Your task to perform on an android device: turn notification dots on Image 0: 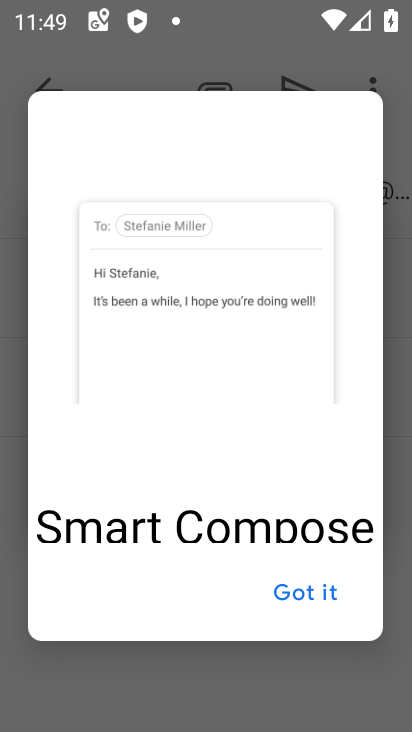
Step 0: press home button
Your task to perform on an android device: turn notification dots on Image 1: 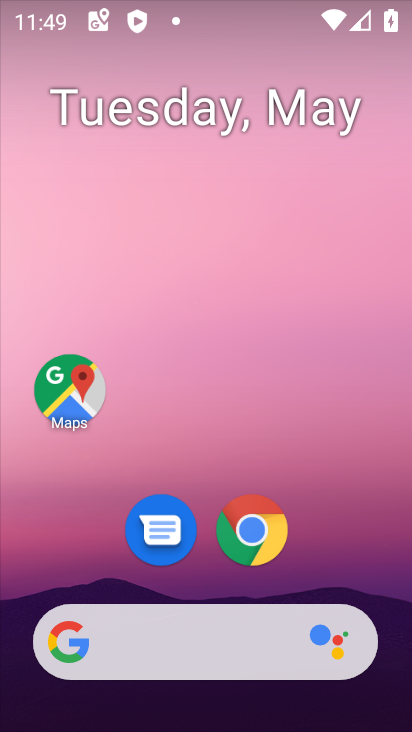
Step 1: drag from (216, 567) to (239, 135)
Your task to perform on an android device: turn notification dots on Image 2: 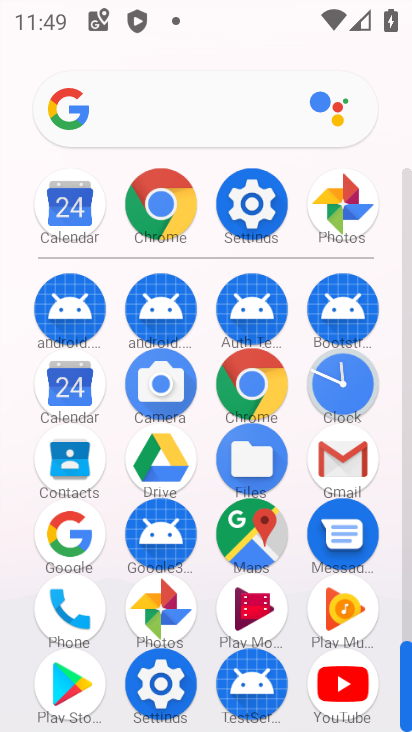
Step 2: click (252, 205)
Your task to perform on an android device: turn notification dots on Image 3: 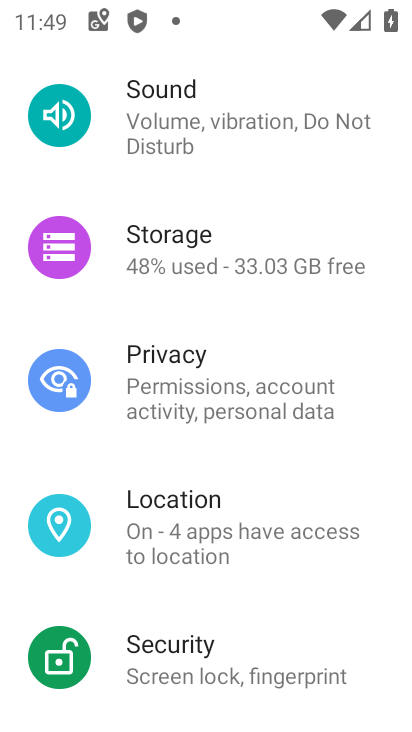
Step 3: drag from (276, 89) to (254, 621)
Your task to perform on an android device: turn notification dots on Image 4: 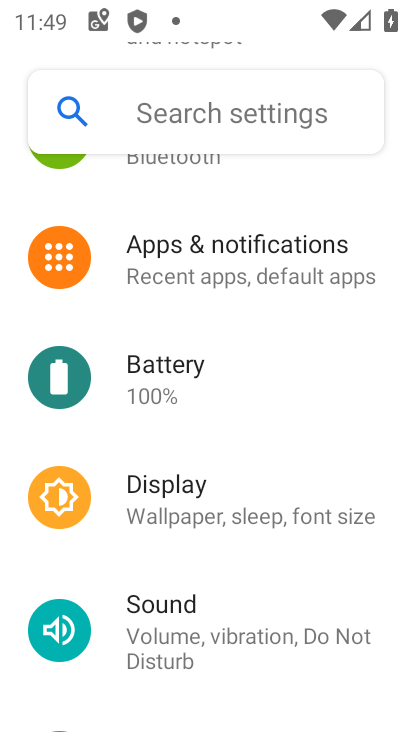
Step 4: click (258, 279)
Your task to perform on an android device: turn notification dots on Image 5: 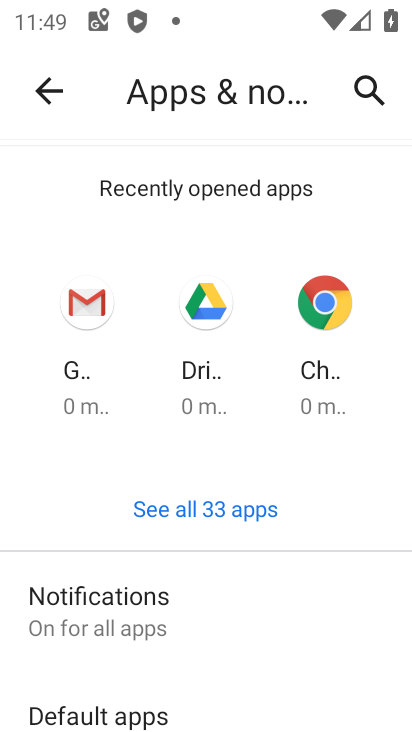
Step 5: drag from (190, 623) to (283, 210)
Your task to perform on an android device: turn notification dots on Image 6: 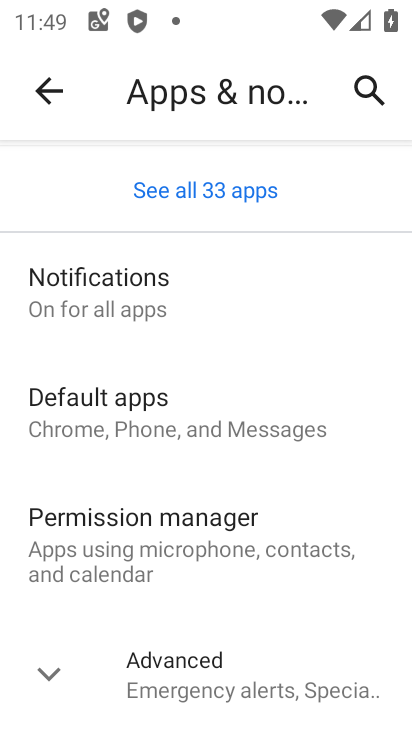
Step 6: click (146, 276)
Your task to perform on an android device: turn notification dots on Image 7: 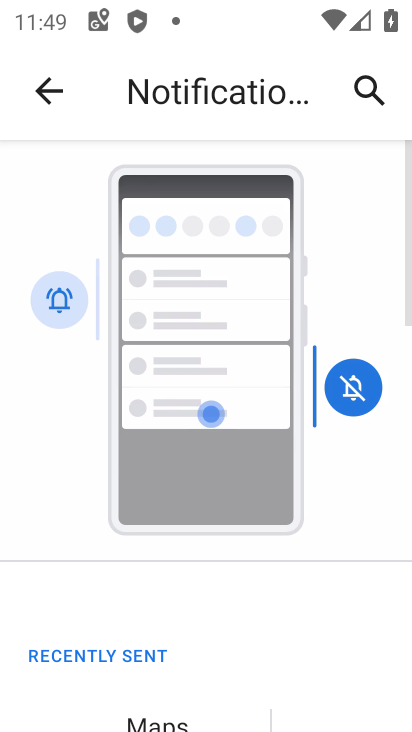
Step 7: drag from (203, 625) to (282, 191)
Your task to perform on an android device: turn notification dots on Image 8: 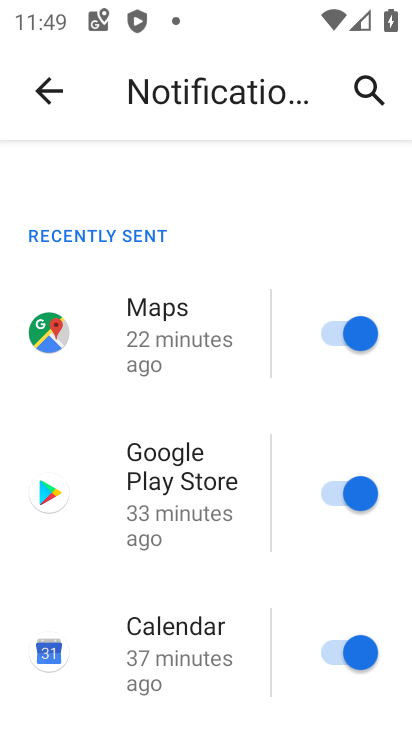
Step 8: drag from (269, 627) to (318, 233)
Your task to perform on an android device: turn notification dots on Image 9: 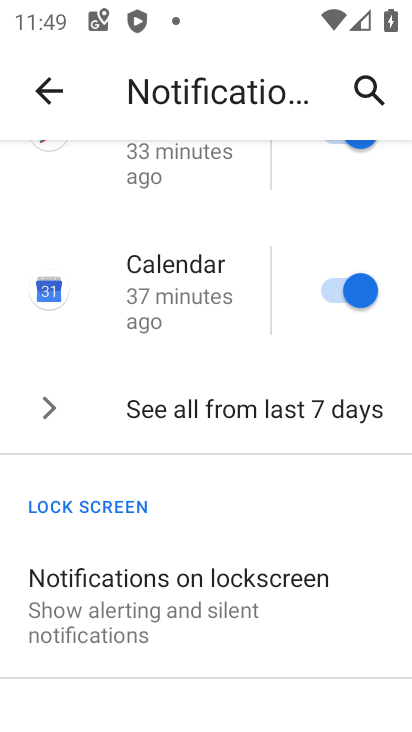
Step 9: drag from (249, 611) to (327, 228)
Your task to perform on an android device: turn notification dots on Image 10: 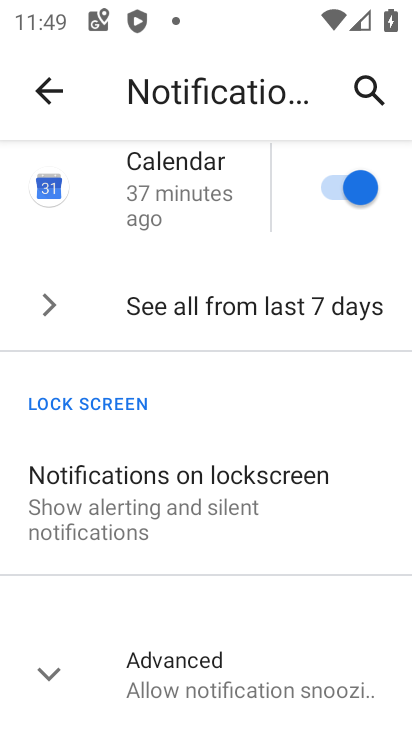
Step 10: click (52, 672)
Your task to perform on an android device: turn notification dots on Image 11: 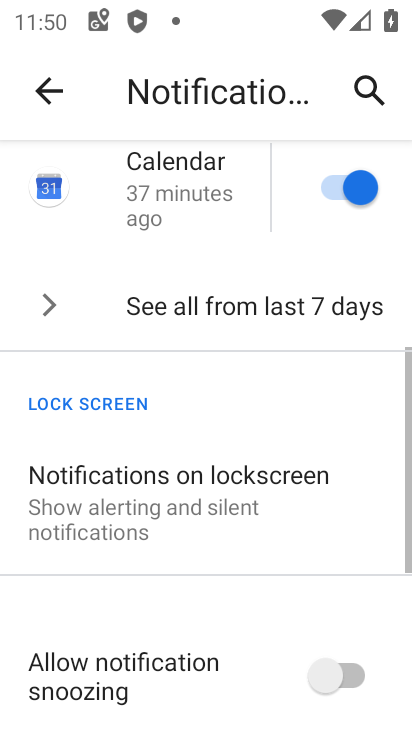
Step 11: drag from (123, 628) to (273, 219)
Your task to perform on an android device: turn notification dots on Image 12: 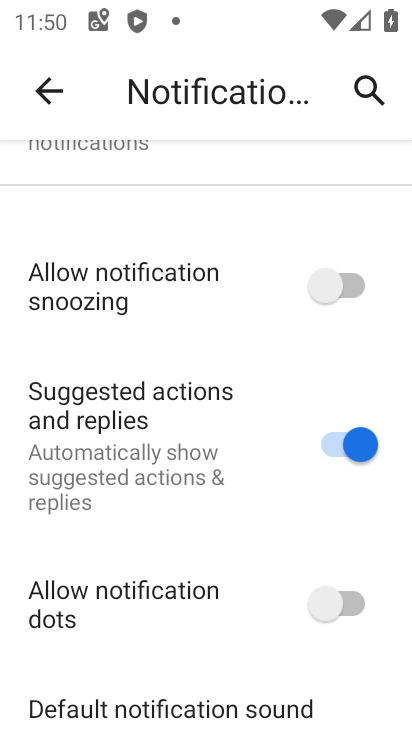
Step 12: click (335, 603)
Your task to perform on an android device: turn notification dots on Image 13: 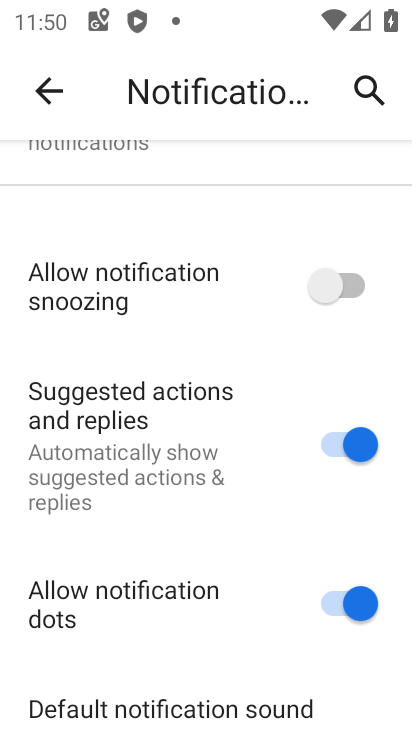
Step 13: task complete